Your task to perform on an android device: Open display settings Image 0: 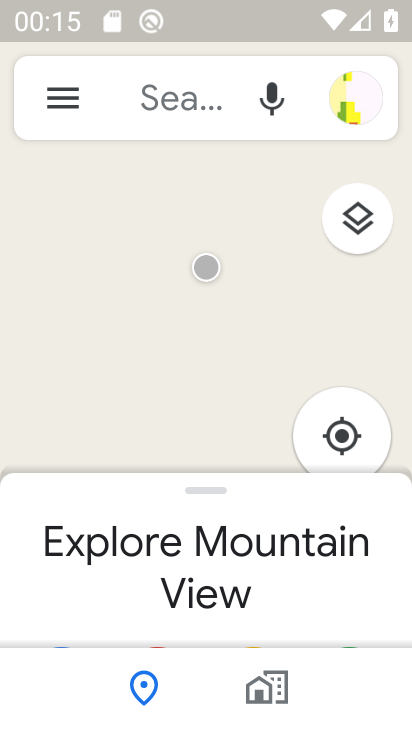
Step 0: press home button
Your task to perform on an android device: Open display settings Image 1: 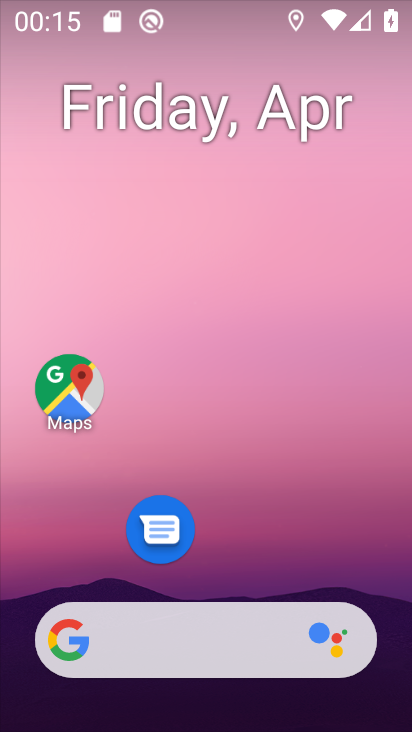
Step 1: drag from (209, 509) to (332, 9)
Your task to perform on an android device: Open display settings Image 2: 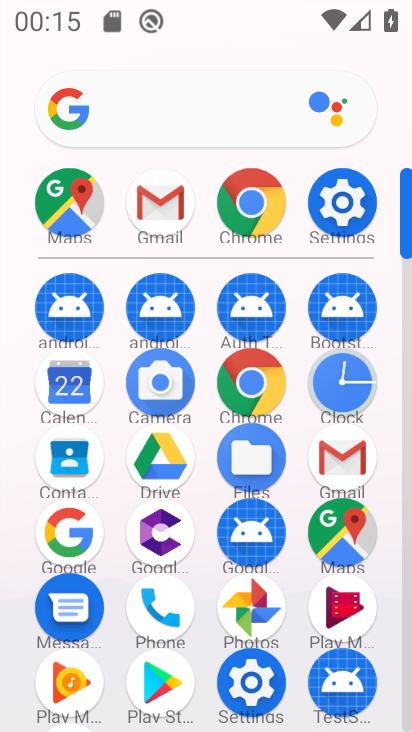
Step 2: drag from (201, 567) to (247, 224)
Your task to perform on an android device: Open display settings Image 3: 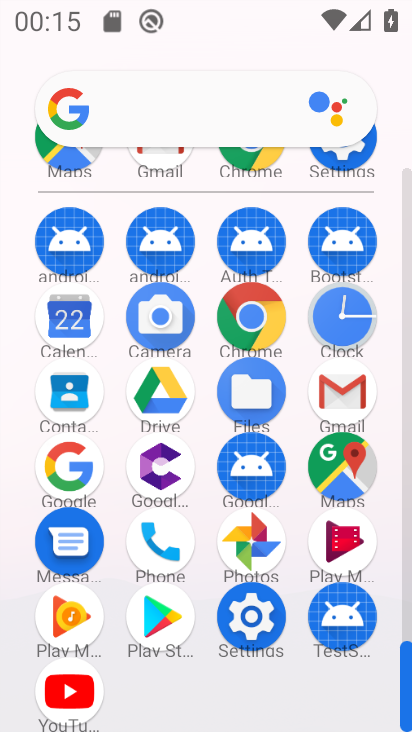
Step 3: click (252, 632)
Your task to perform on an android device: Open display settings Image 4: 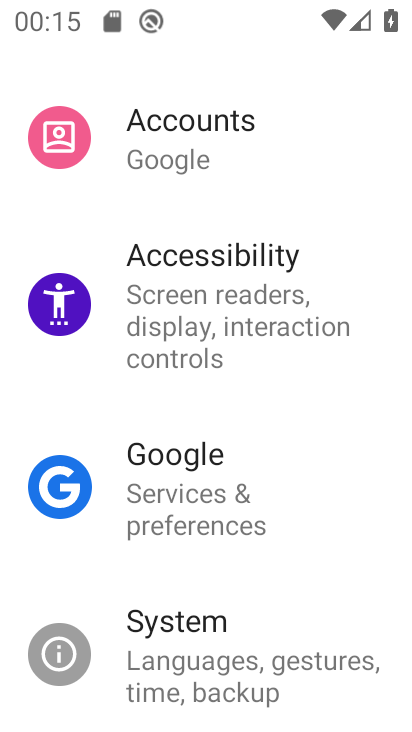
Step 4: drag from (235, 567) to (287, 308)
Your task to perform on an android device: Open display settings Image 5: 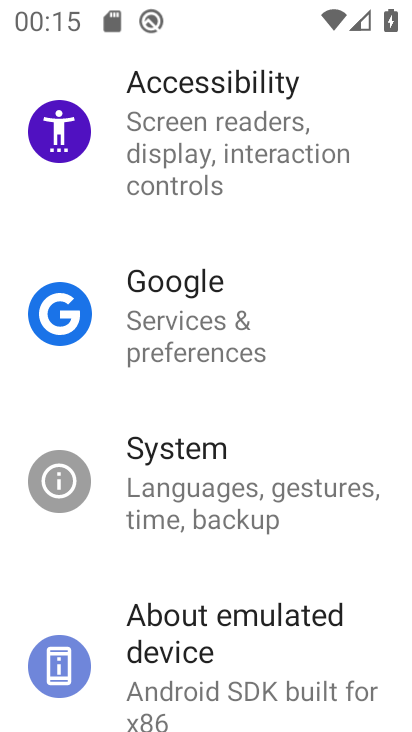
Step 5: drag from (193, 623) to (245, 378)
Your task to perform on an android device: Open display settings Image 6: 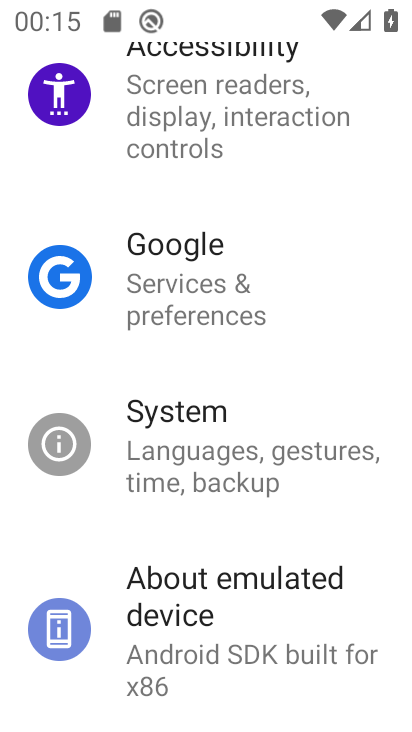
Step 6: drag from (265, 258) to (200, 707)
Your task to perform on an android device: Open display settings Image 7: 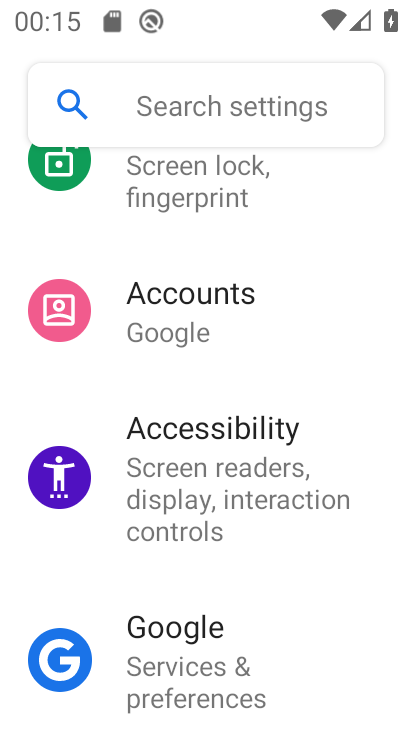
Step 7: drag from (265, 290) to (213, 675)
Your task to perform on an android device: Open display settings Image 8: 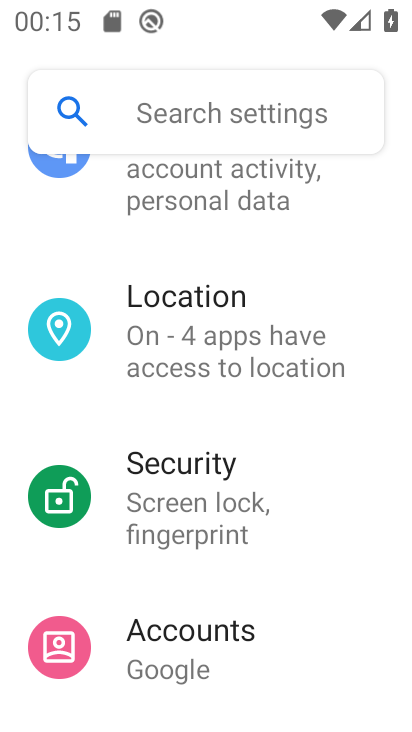
Step 8: drag from (259, 204) to (264, 554)
Your task to perform on an android device: Open display settings Image 9: 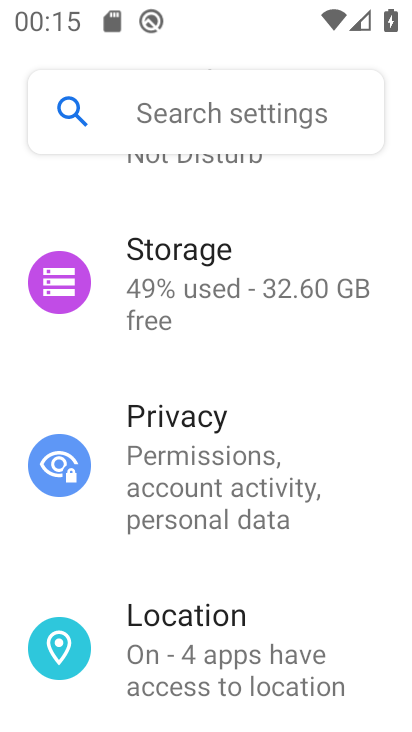
Step 9: drag from (219, 303) to (216, 542)
Your task to perform on an android device: Open display settings Image 10: 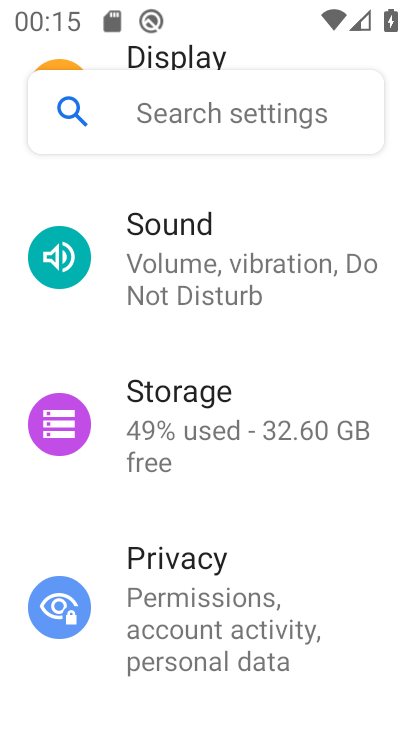
Step 10: drag from (230, 296) to (215, 622)
Your task to perform on an android device: Open display settings Image 11: 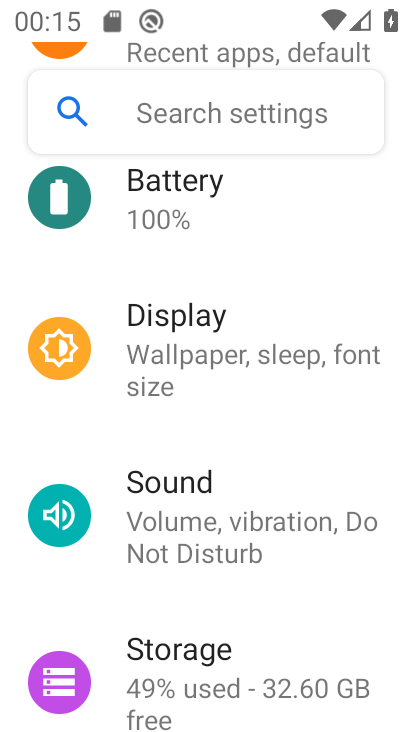
Step 11: click (195, 355)
Your task to perform on an android device: Open display settings Image 12: 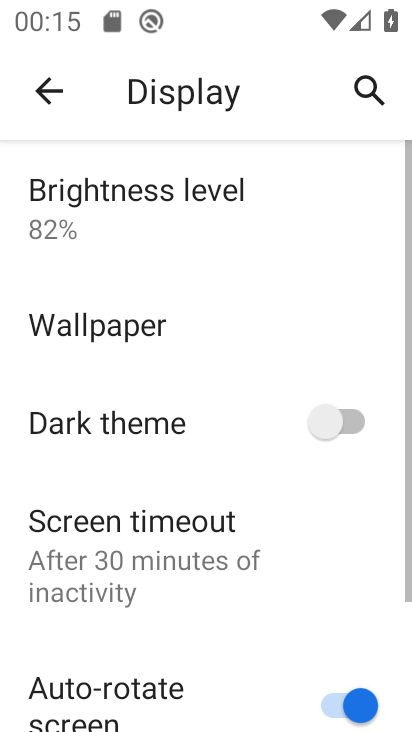
Step 12: task complete